Your task to perform on an android device: turn pop-ups on in chrome Image 0: 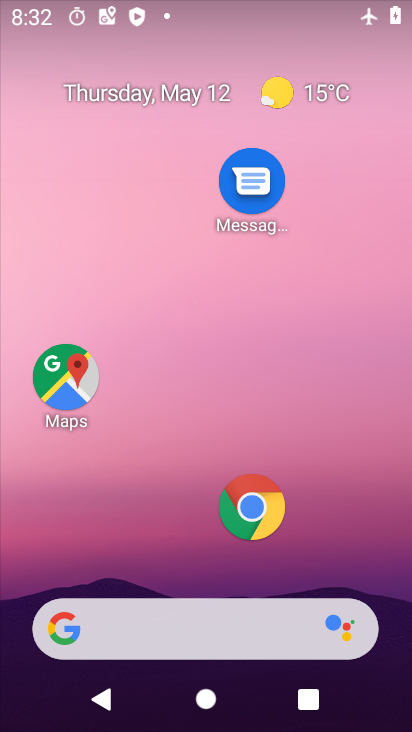
Step 0: click (261, 506)
Your task to perform on an android device: turn pop-ups on in chrome Image 1: 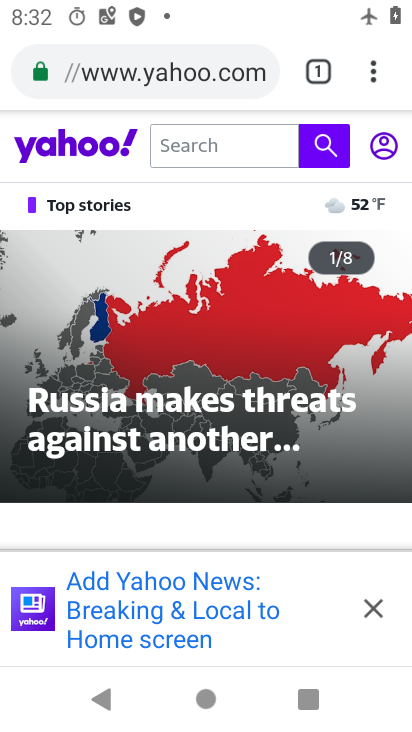
Step 1: click (368, 69)
Your task to perform on an android device: turn pop-ups on in chrome Image 2: 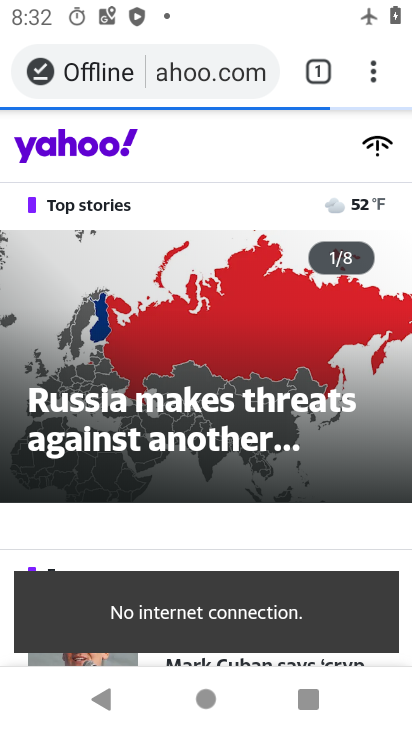
Step 2: click (368, 69)
Your task to perform on an android device: turn pop-ups on in chrome Image 3: 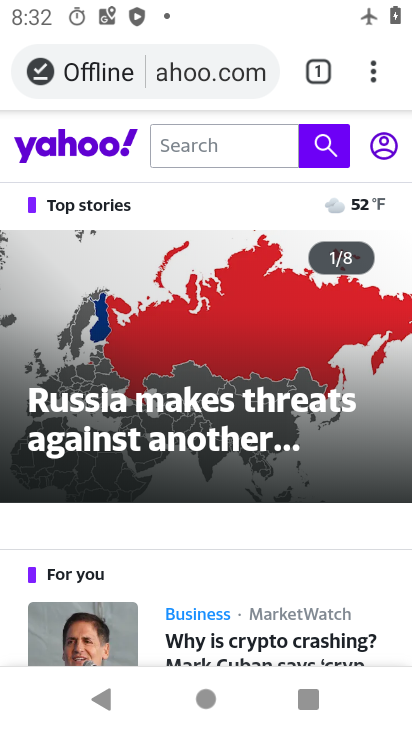
Step 3: click (368, 69)
Your task to perform on an android device: turn pop-ups on in chrome Image 4: 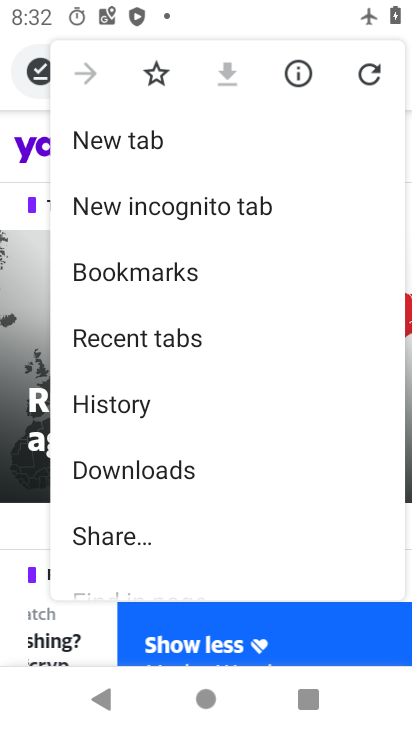
Step 4: drag from (237, 486) to (318, 121)
Your task to perform on an android device: turn pop-ups on in chrome Image 5: 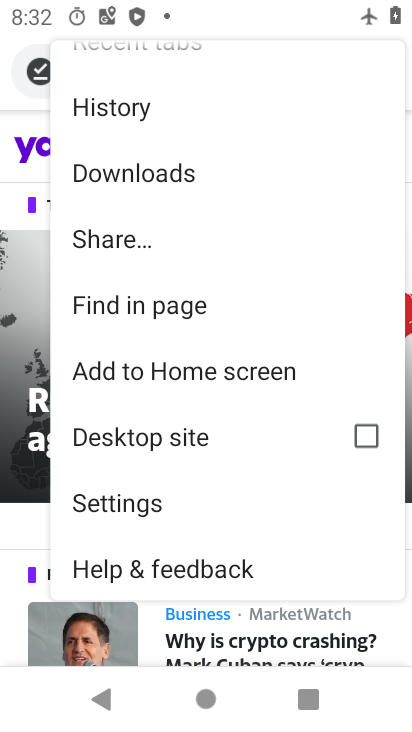
Step 5: click (162, 500)
Your task to perform on an android device: turn pop-ups on in chrome Image 6: 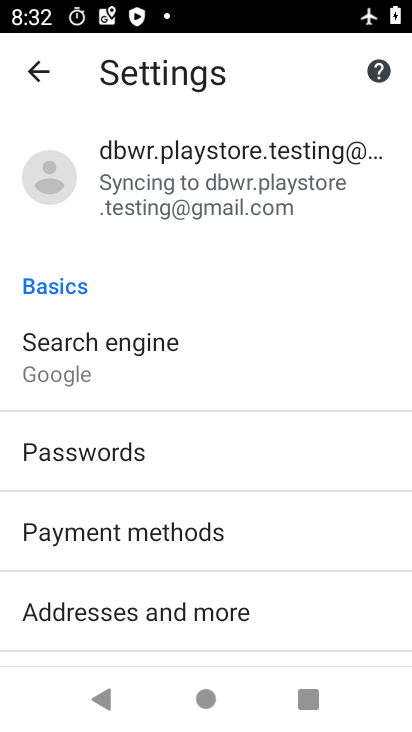
Step 6: drag from (174, 590) to (292, 201)
Your task to perform on an android device: turn pop-ups on in chrome Image 7: 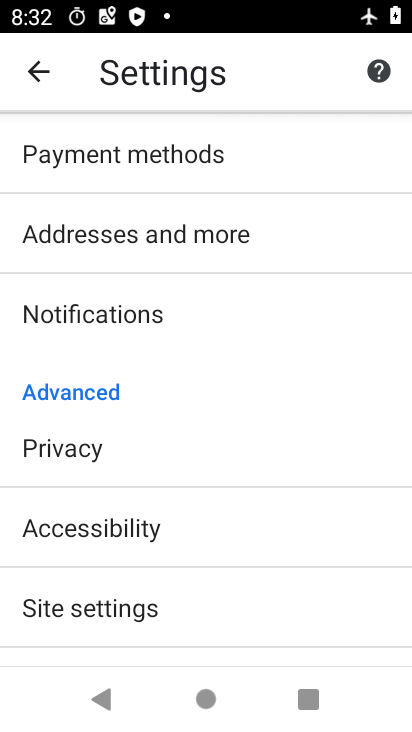
Step 7: click (130, 612)
Your task to perform on an android device: turn pop-ups on in chrome Image 8: 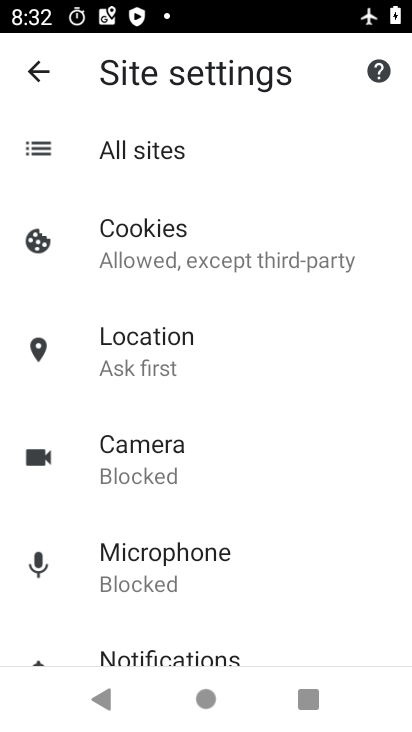
Step 8: drag from (234, 589) to (351, 369)
Your task to perform on an android device: turn pop-ups on in chrome Image 9: 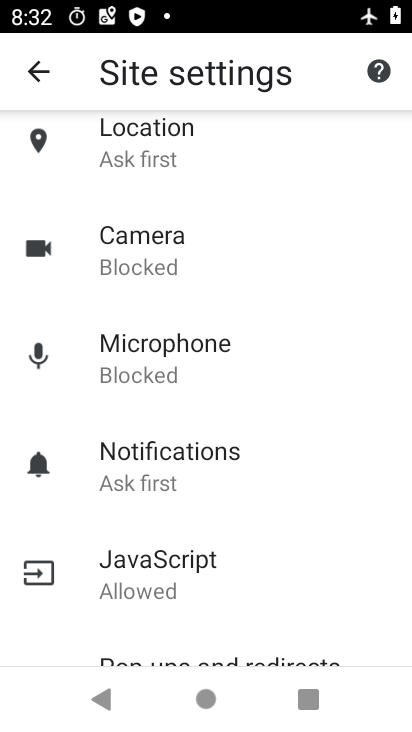
Step 9: drag from (280, 597) to (395, 365)
Your task to perform on an android device: turn pop-ups on in chrome Image 10: 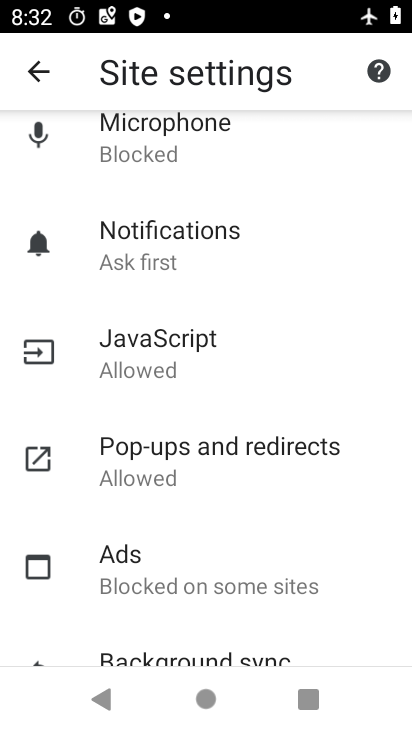
Step 10: click (277, 474)
Your task to perform on an android device: turn pop-ups on in chrome Image 11: 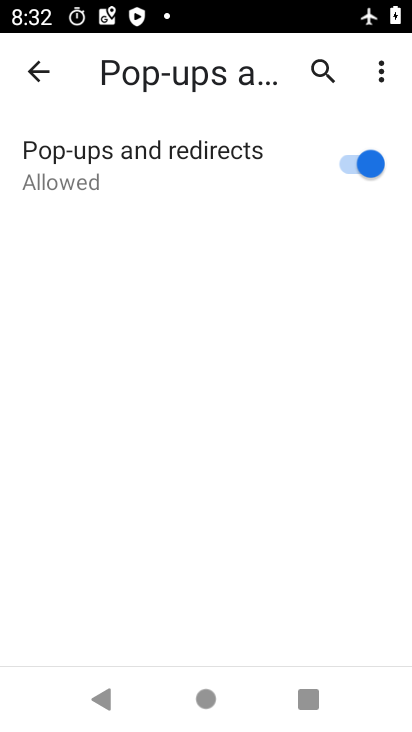
Step 11: task complete